Your task to perform on an android device: delete the emails in spam in the gmail app Image 0: 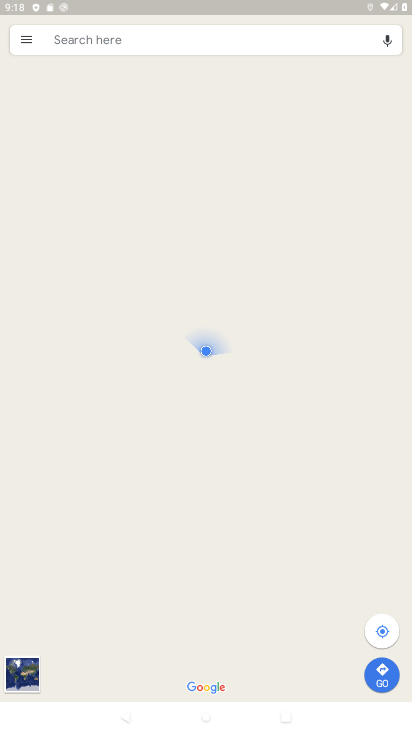
Step 0: press back button
Your task to perform on an android device: delete the emails in spam in the gmail app Image 1: 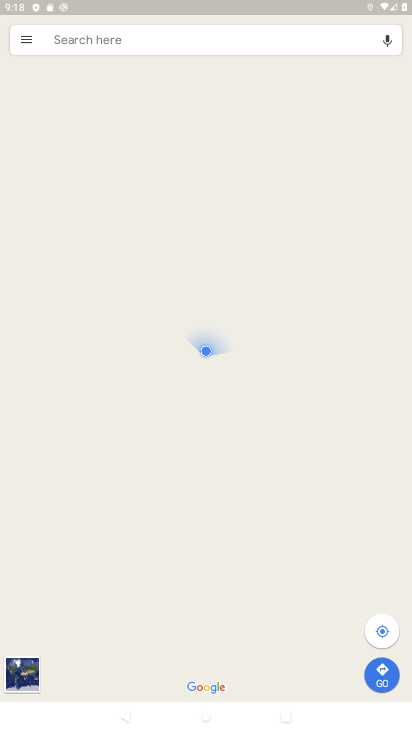
Step 1: press back button
Your task to perform on an android device: delete the emails in spam in the gmail app Image 2: 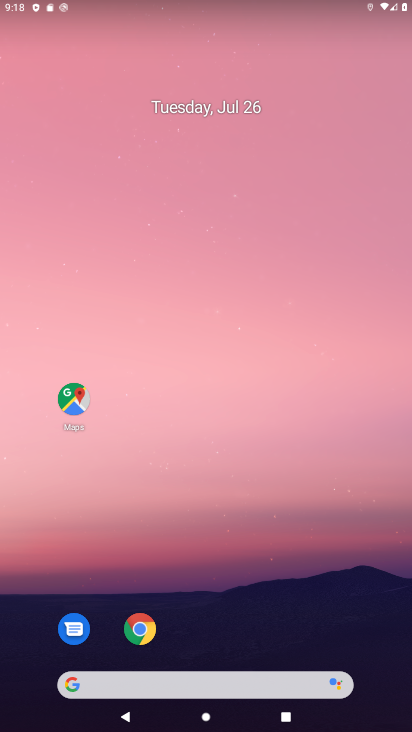
Step 2: press home button
Your task to perform on an android device: delete the emails in spam in the gmail app Image 3: 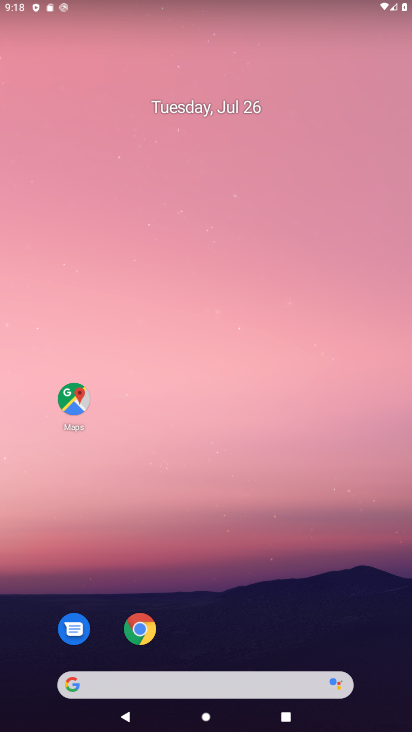
Step 3: click (169, 197)
Your task to perform on an android device: delete the emails in spam in the gmail app Image 4: 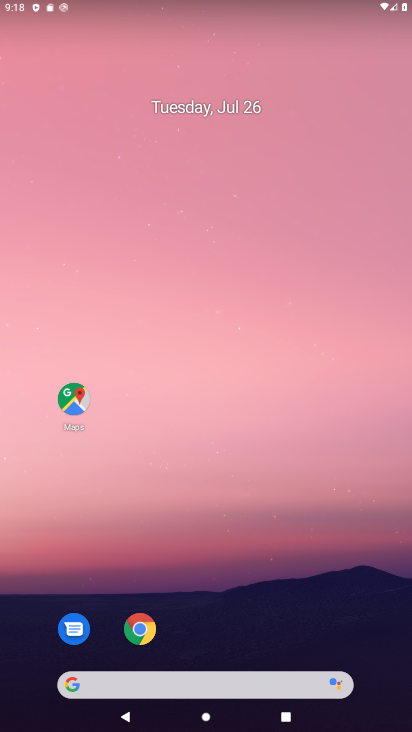
Step 4: drag from (170, 631) to (172, 270)
Your task to perform on an android device: delete the emails in spam in the gmail app Image 5: 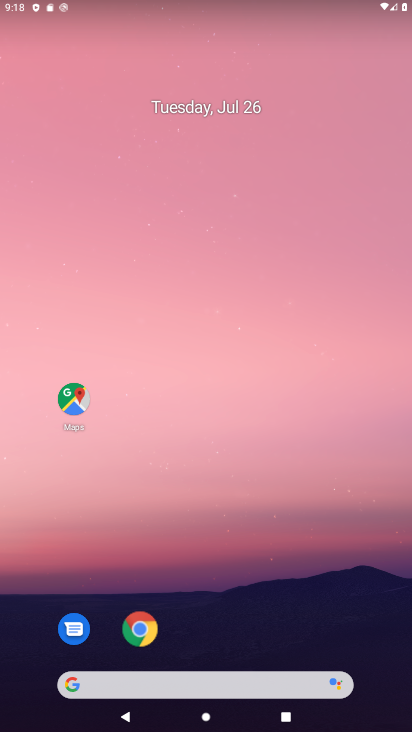
Step 5: drag from (207, 331) to (174, 91)
Your task to perform on an android device: delete the emails in spam in the gmail app Image 6: 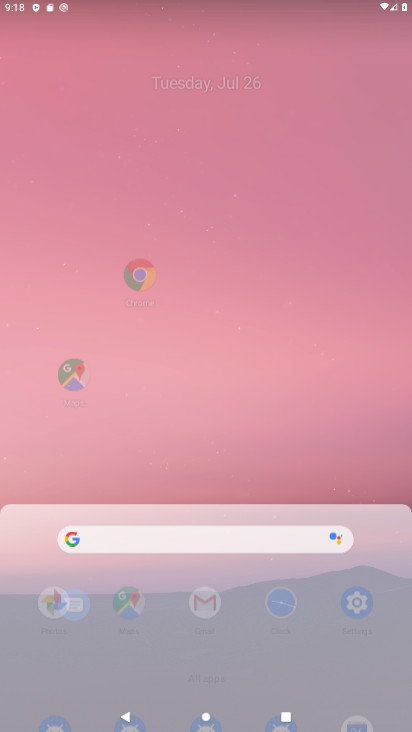
Step 6: drag from (209, 536) to (206, 91)
Your task to perform on an android device: delete the emails in spam in the gmail app Image 7: 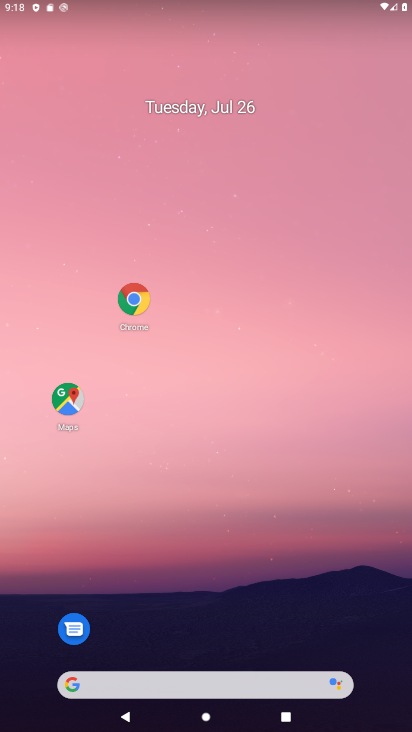
Step 7: drag from (191, 325) to (184, 45)
Your task to perform on an android device: delete the emails in spam in the gmail app Image 8: 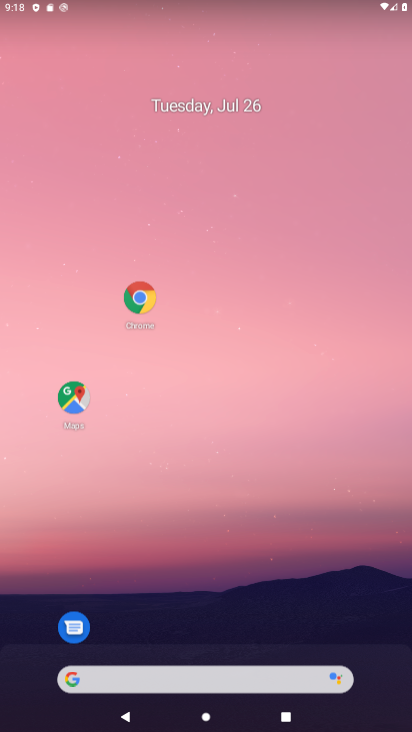
Step 8: drag from (173, 91) to (191, 35)
Your task to perform on an android device: delete the emails in spam in the gmail app Image 9: 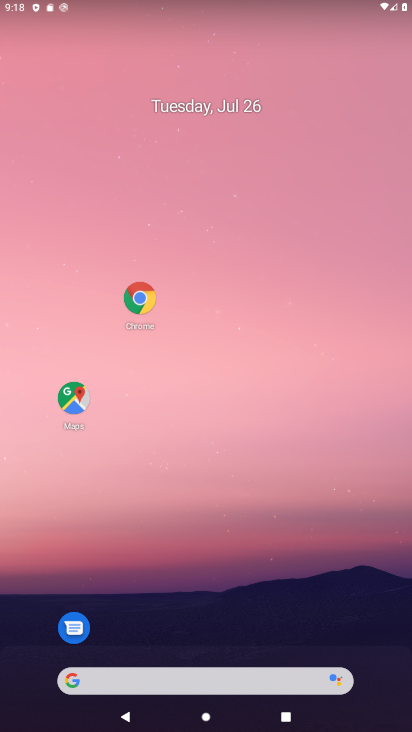
Step 9: drag from (241, 306) to (240, 95)
Your task to perform on an android device: delete the emails in spam in the gmail app Image 10: 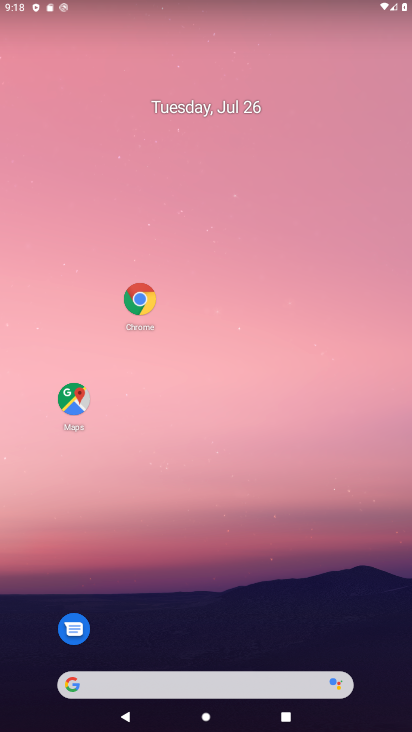
Step 10: drag from (244, 418) to (326, 3)
Your task to perform on an android device: delete the emails in spam in the gmail app Image 11: 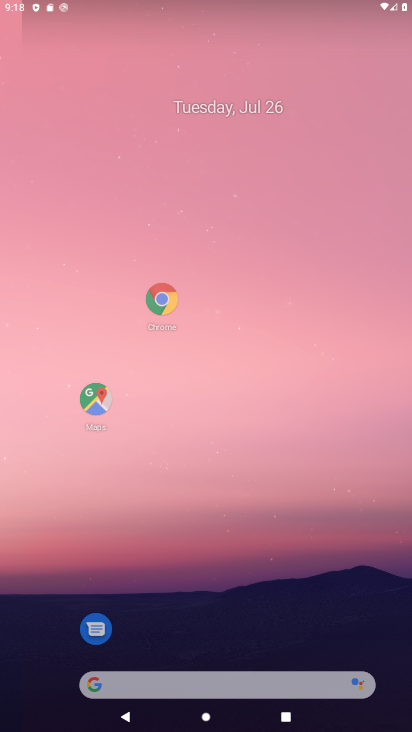
Step 11: drag from (244, 362) to (176, 4)
Your task to perform on an android device: delete the emails in spam in the gmail app Image 12: 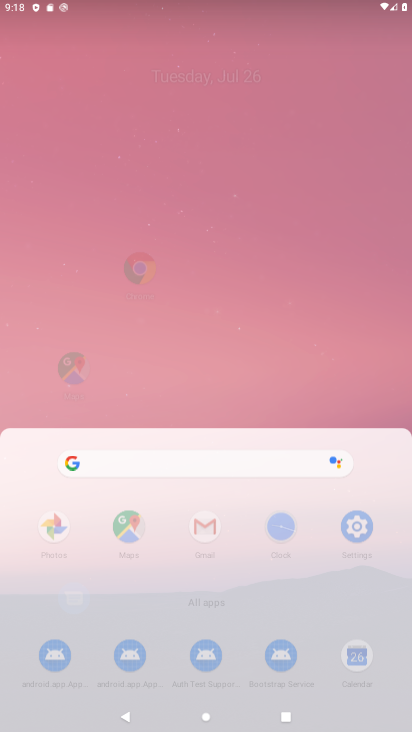
Step 12: drag from (204, 337) to (183, 181)
Your task to perform on an android device: delete the emails in spam in the gmail app Image 13: 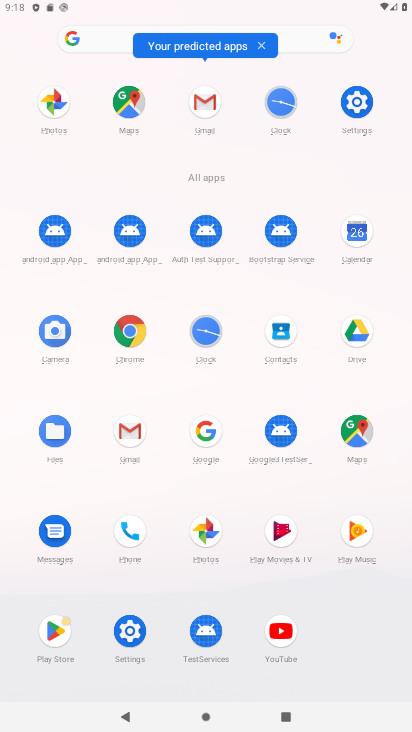
Step 13: click (195, 229)
Your task to perform on an android device: delete the emails in spam in the gmail app Image 14: 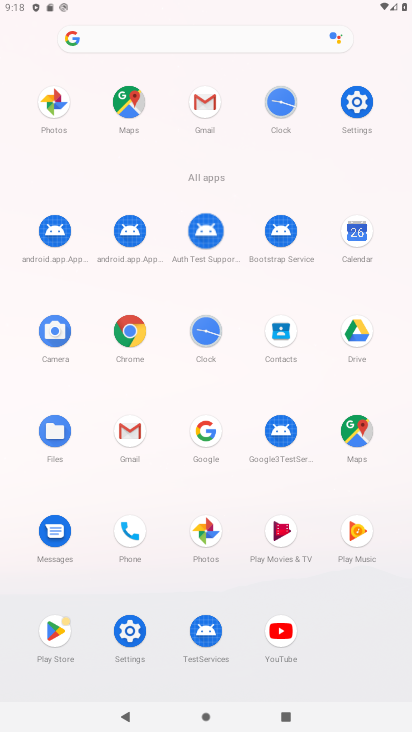
Step 14: click (197, 113)
Your task to perform on an android device: delete the emails in spam in the gmail app Image 15: 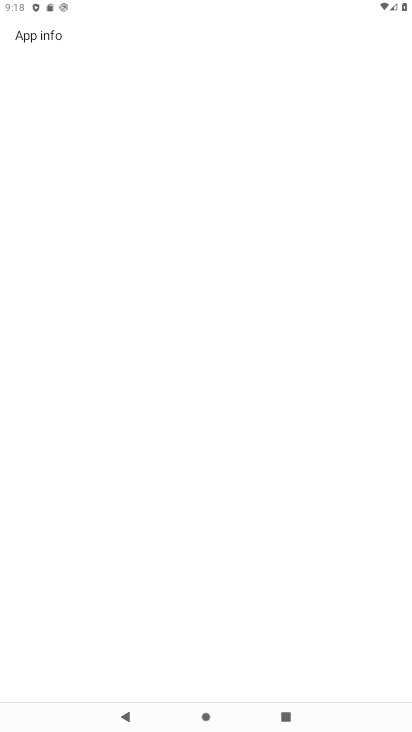
Step 15: click (206, 107)
Your task to perform on an android device: delete the emails in spam in the gmail app Image 16: 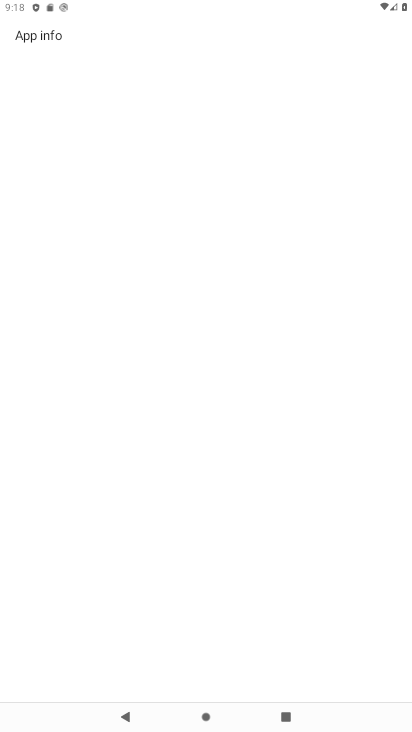
Step 16: click (206, 107)
Your task to perform on an android device: delete the emails in spam in the gmail app Image 17: 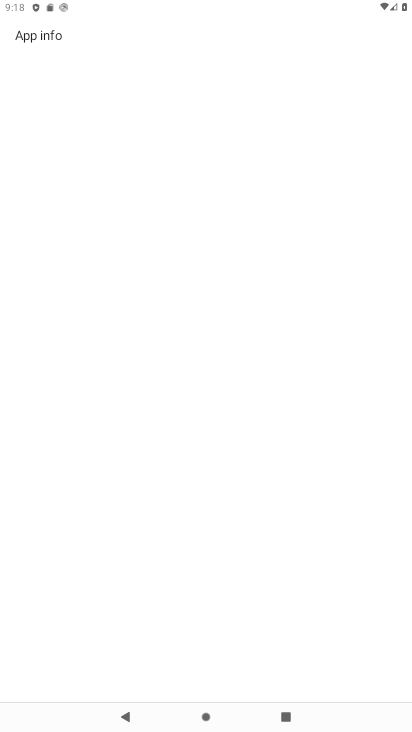
Step 17: press back button
Your task to perform on an android device: delete the emails in spam in the gmail app Image 18: 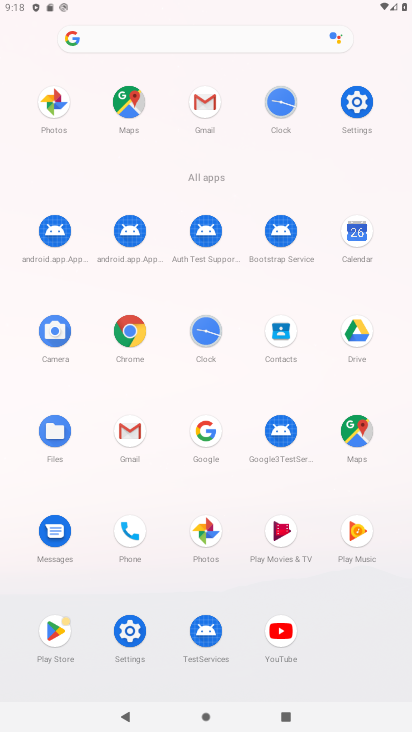
Step 18: click (23, 48)
Your task to perform on an android device: delete the emails in spam in the gmail app Image 19: 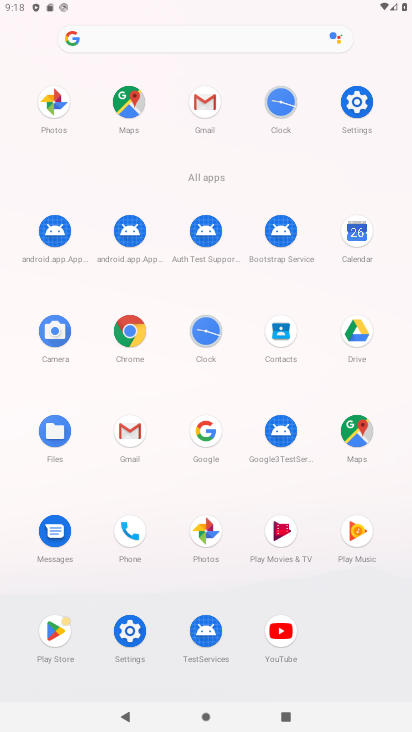
Step 19: click (186, 109)
Your task to perform on an android device: delete the emails in spam in the gmail app Image 20: 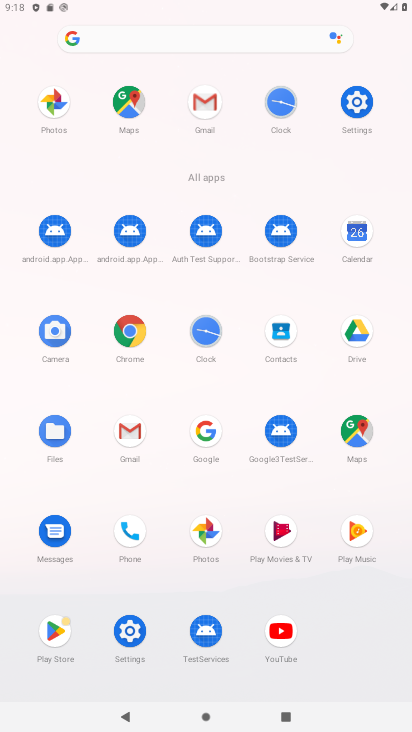
Step 20: click (199, 114)
Your task to perform on an android device: delete the emails in spam in the gmail app Image 21: 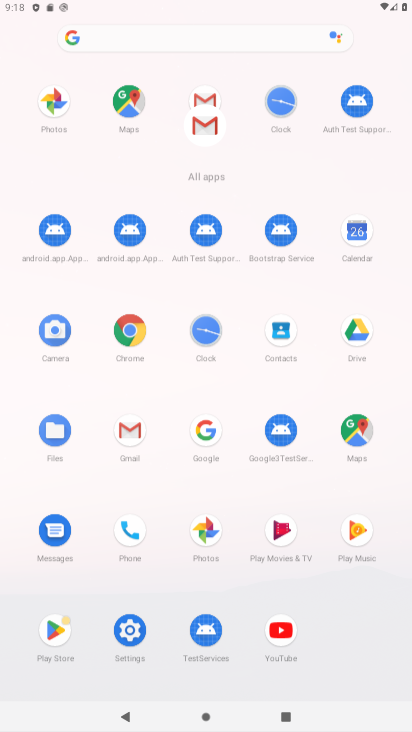
Step 21: click (198, 113)
Your task to perform on an android device: delete the emails in spam in the gmail app Image 22: 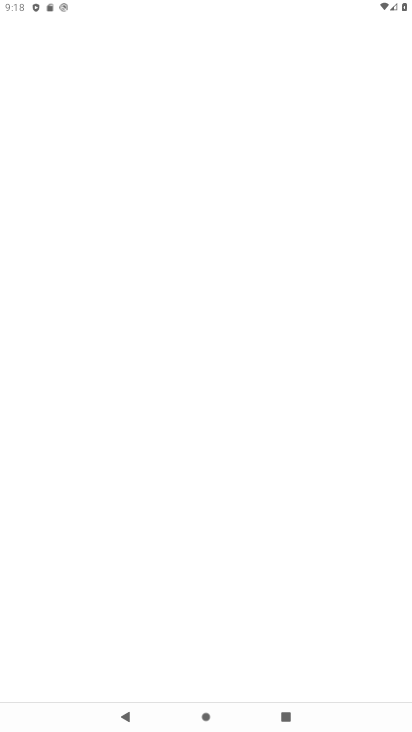
Step 22: click (199, 101)
Your task to perform on an android device: delete the emails in spam in the gmail app Image 23: 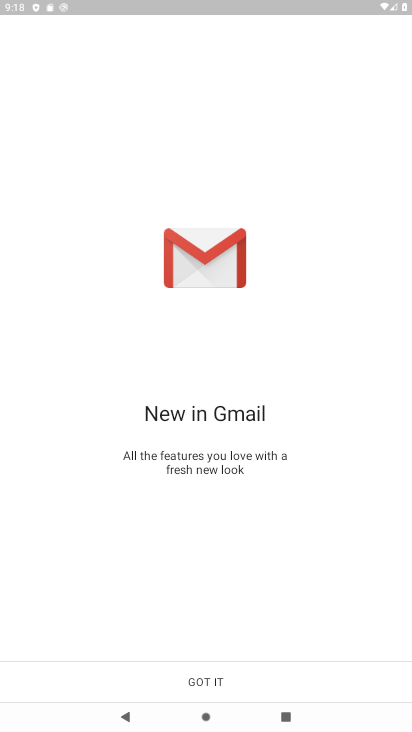
Step 23: click (206, 681)
Your task to perform on an android device: delete the emails in spam in the gmail app Image 24: 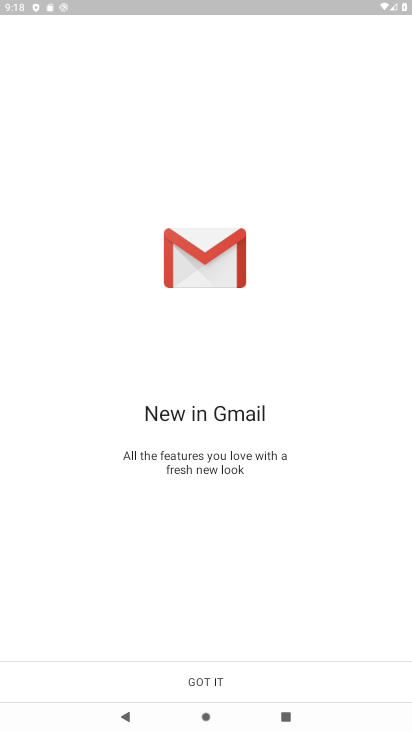
Step 24: click (206, 681)
Your task to perform on an android device: delete the emails in spam in the gmail app Image 25: 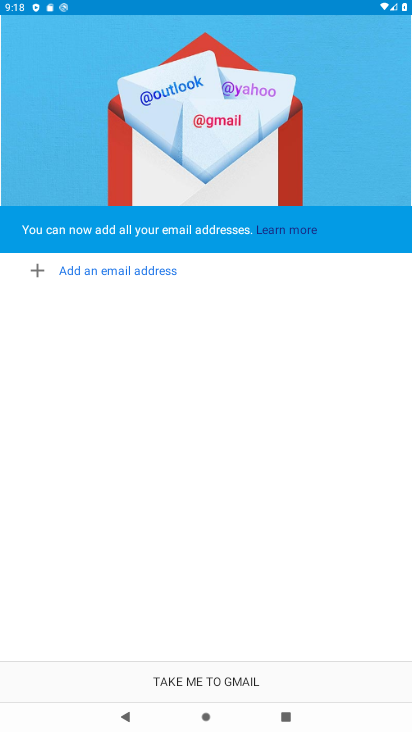
Step 25: click (206, 681)
Your task to perform on an android device: delete the emails in spam in the gmail app Image 26: 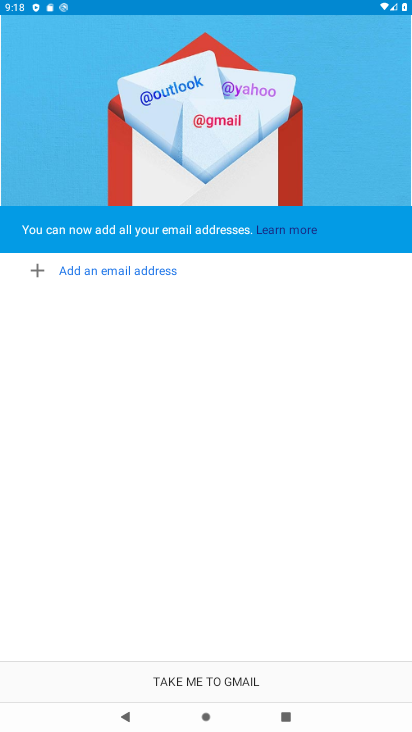
Step 26: click (206, 681)
Your task to perform on an android device: delete the emails in spam in the gmail app Image 27: 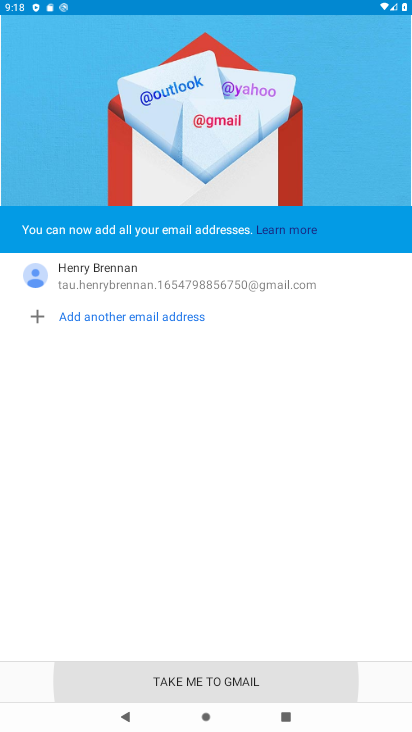
Step 27: click (206, 681)
Your task to perform on an android device: delete the emails in spam in the gmail app Image 28: 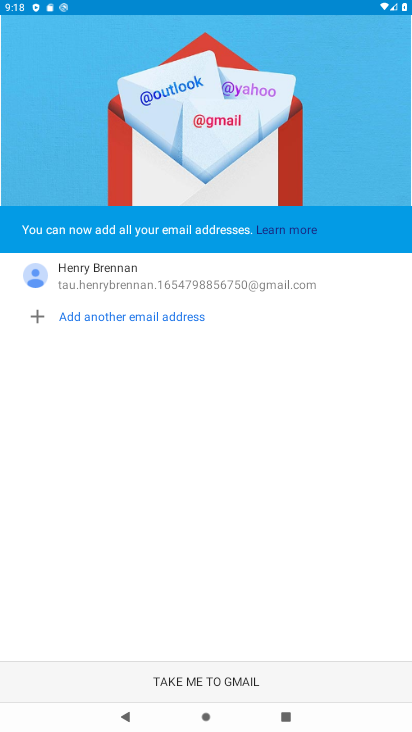
Step 28: click (206, 681)
Your task to perform on an android device: delete the emails in spam in the gmail app Image 29: 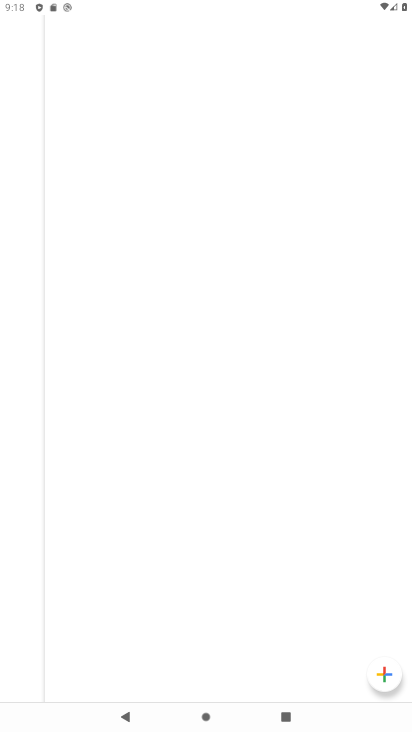
Step 29: click (195, 678)
Your task to perform on an android device: delete the emails in spam in the gmail app Image 30: 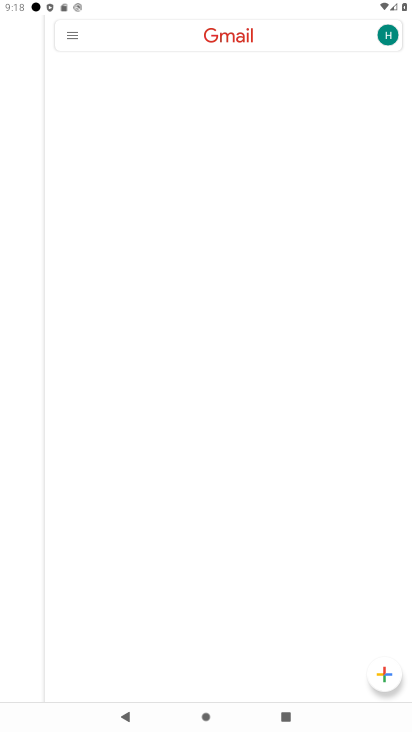
Step 30: click (195, 678)
Your task to perform on an android device: delete the emails in spam in the gmail app Image 31: 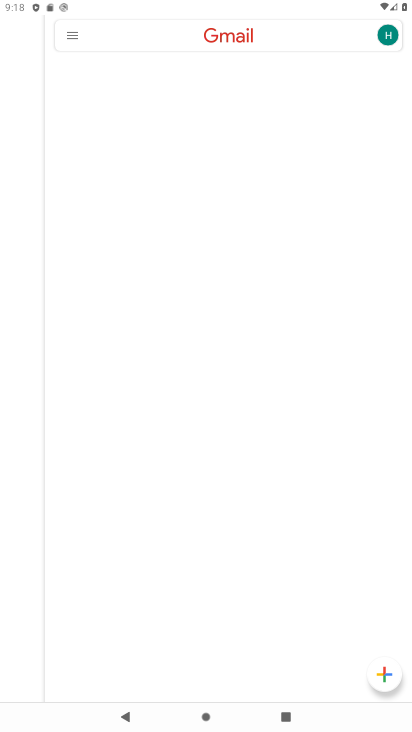
Step 31: click (195, 678)
Your task to perform on an android device: delete the emails in spam in the gmail app Image 32: 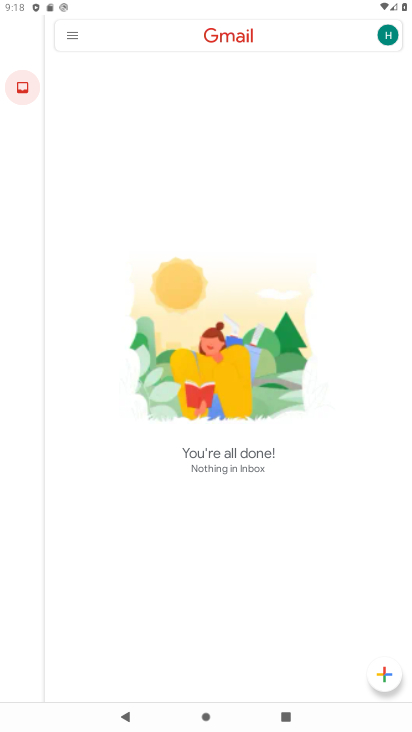
Step 32: click (72, 39)
Your task to perform on an android device: delete the emails in spam in the gmail app Image 33: 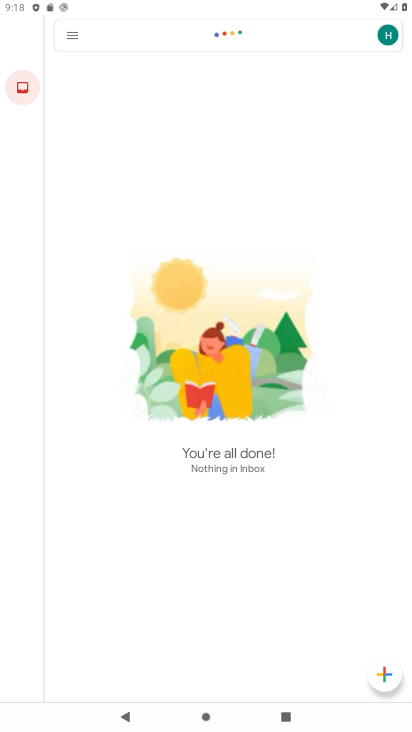
Step 33: click (74, 30)
Your task to perform on an android device: delete the emails in spam in the gmail app Image 34: 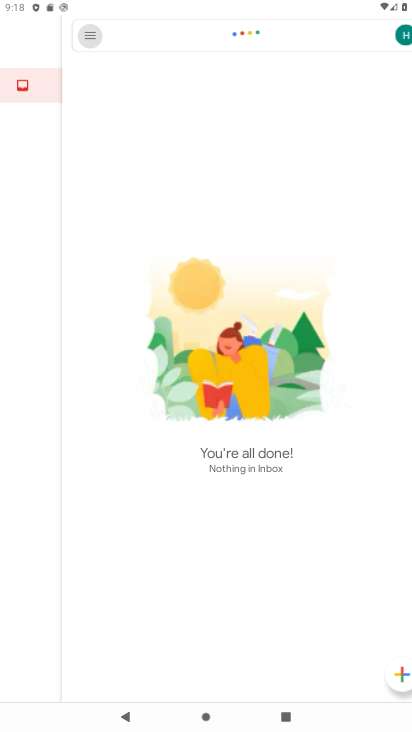
Step 34: click (74, 30)
Your task to perform on an android device: delete the emails in spam in the gmail app Image 35: 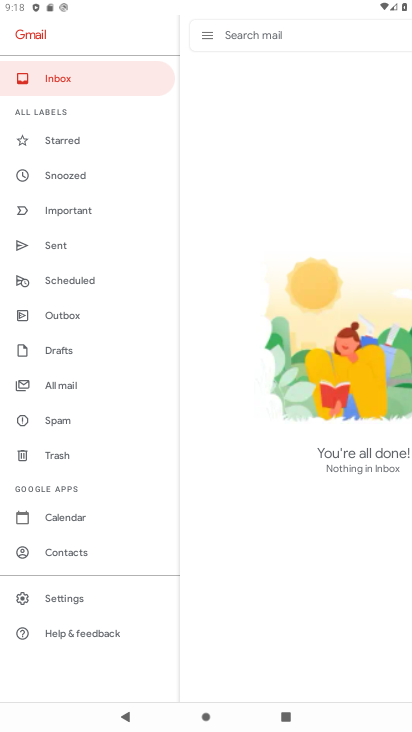
Step 35: click (54, 421)
Your task to perform on an android device: delete the emails in spam in the gmail app Image 36: 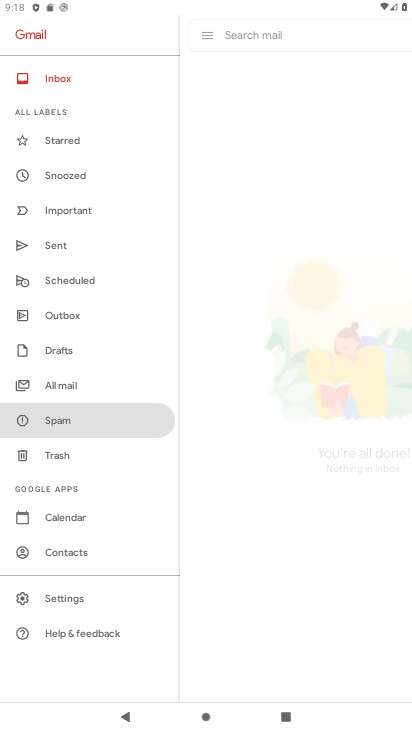
Step 36: click (54, 421)
Your task to perform on an android device: delete the emails in spam in the gmail app Image 37: 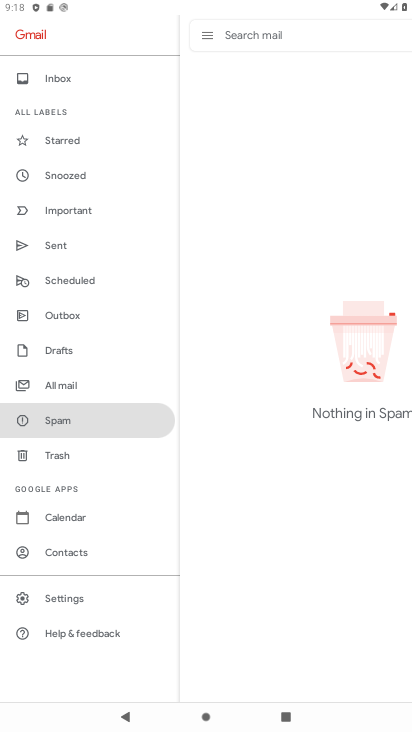
Step 37: task complete